Your task to perform on an android device: clear history in the chrome app Image 0: 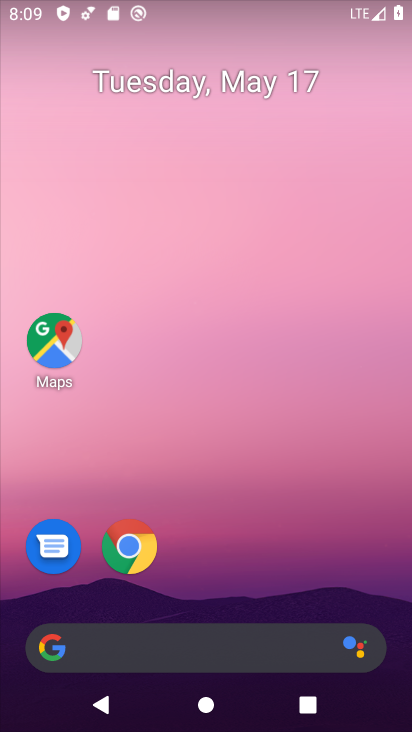
Step 0: drag from (281, 641) to (219, 45)
Your task to perform on an android device: clear history in the chrome app Image 1: 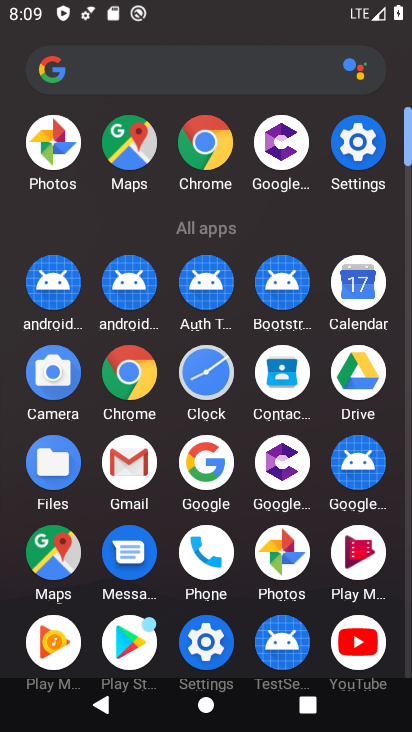
Step 1: click (187, 146)
Your task to perform on an android device: clear history in the chrome app Image 2: 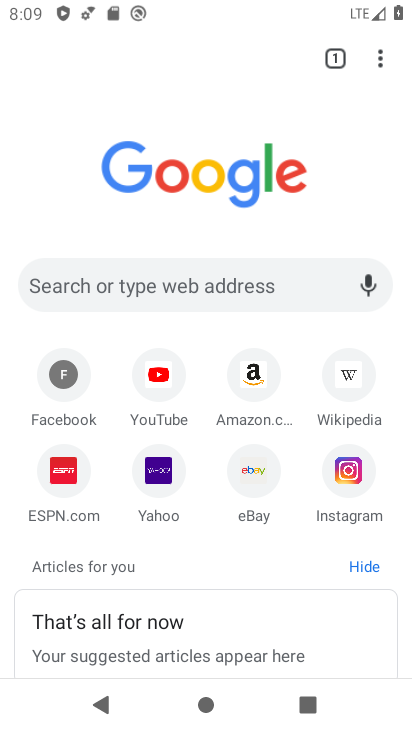
Step 2: drag from (379, 53) to (166, 322)
Your task to perform on an android device: clear history in the chrome app Image 3: 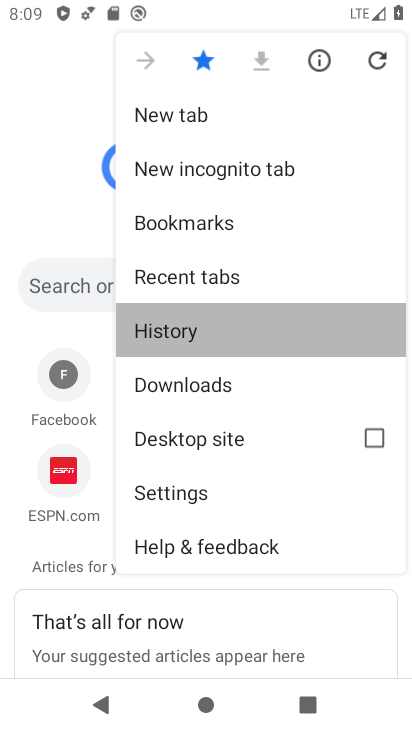
Step 3: click (166, 322)
Your task to perform on an android device: clear history in the chrome app Image 4: 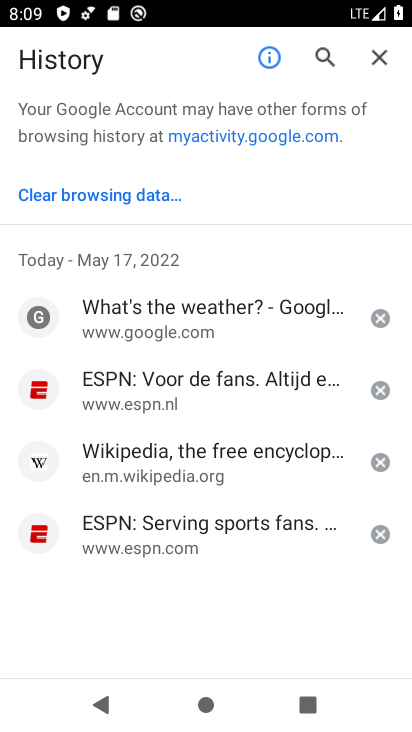
Step 4: click (146, 188)
Your task to perform on an android device: clear history in the chrome app Image 5: 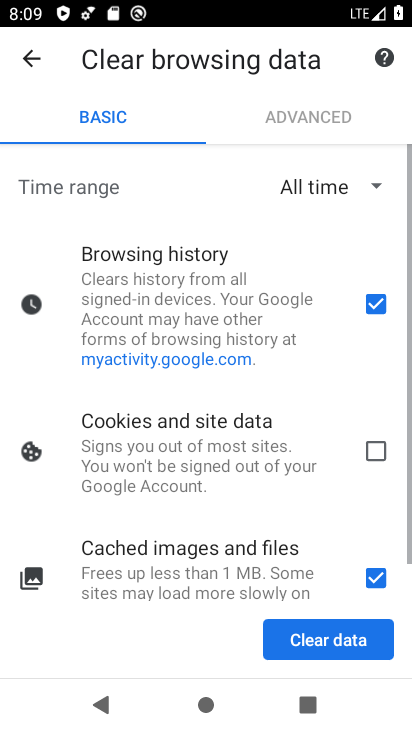
Step 5: click (329, 639)
Your task to perform on an android device: clear history in the chrome app Image 6: 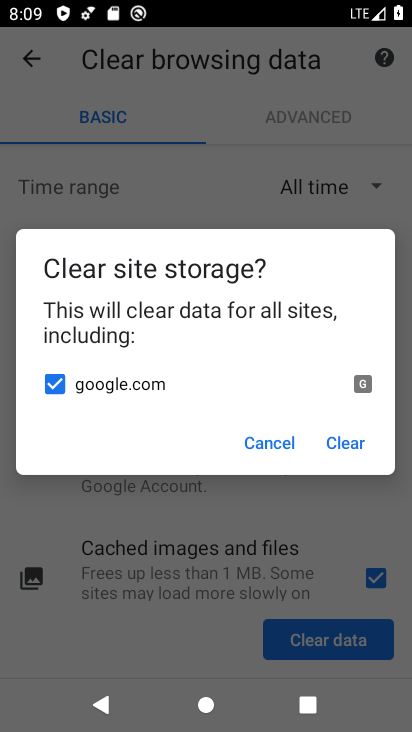
Step 6: click (351, 435)
Your task to perform on an android device: clear history in the chrome app Image 7: 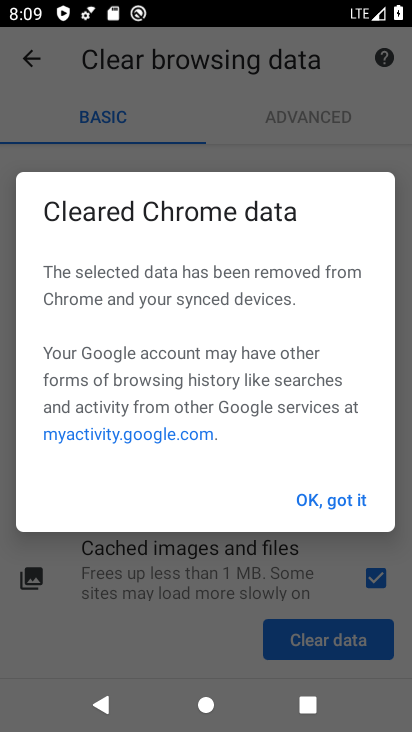
Step 7: click (337, 501)
Your task to perform on an android device: clear history in the chrome app Image 8: 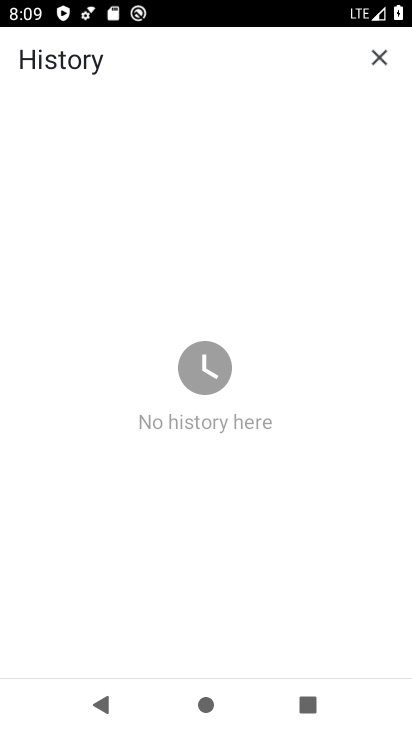
Step 8: task complete